Your task to perform on an android device: Open Google Chrome and open the bookmarks view Image 0: 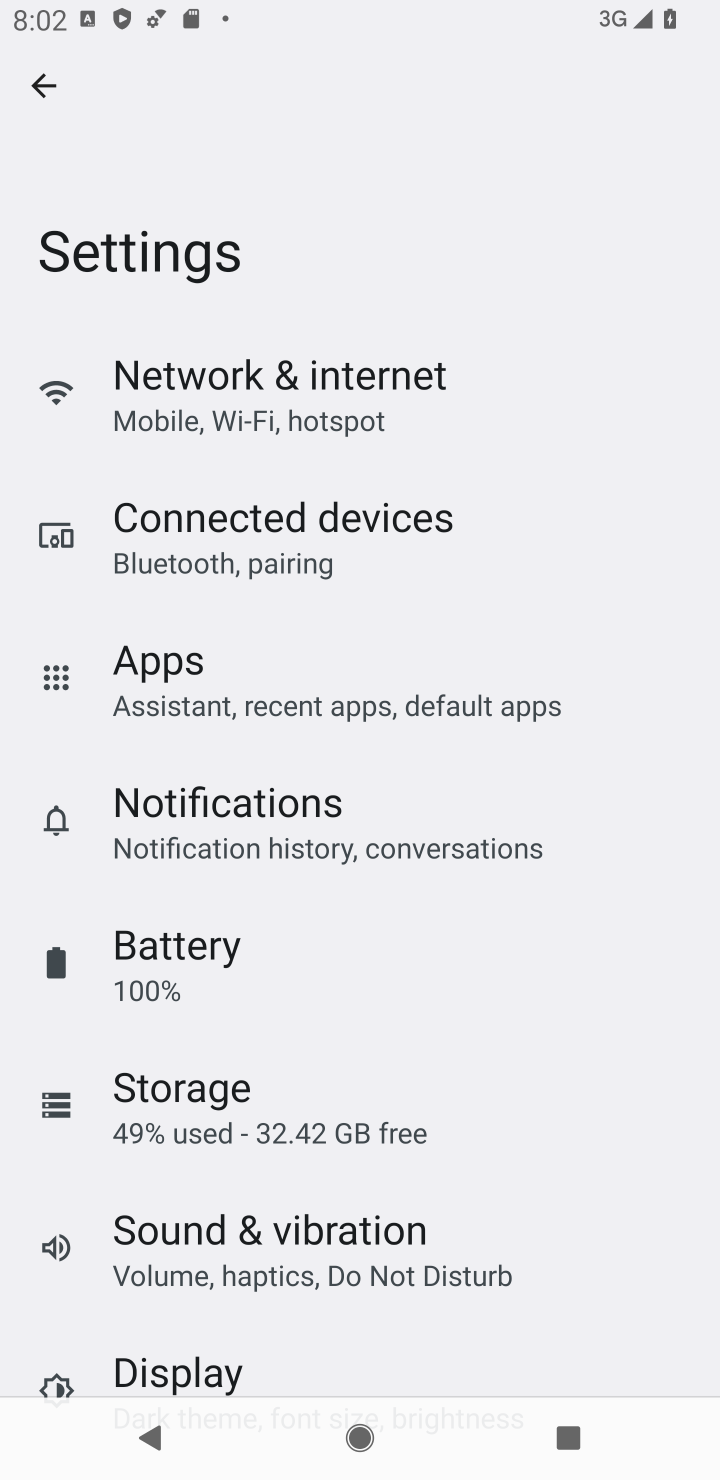
Step 0: press home button
Your task to perform on an android device: Open Google Chrome and open the bookmarks view Image 1: 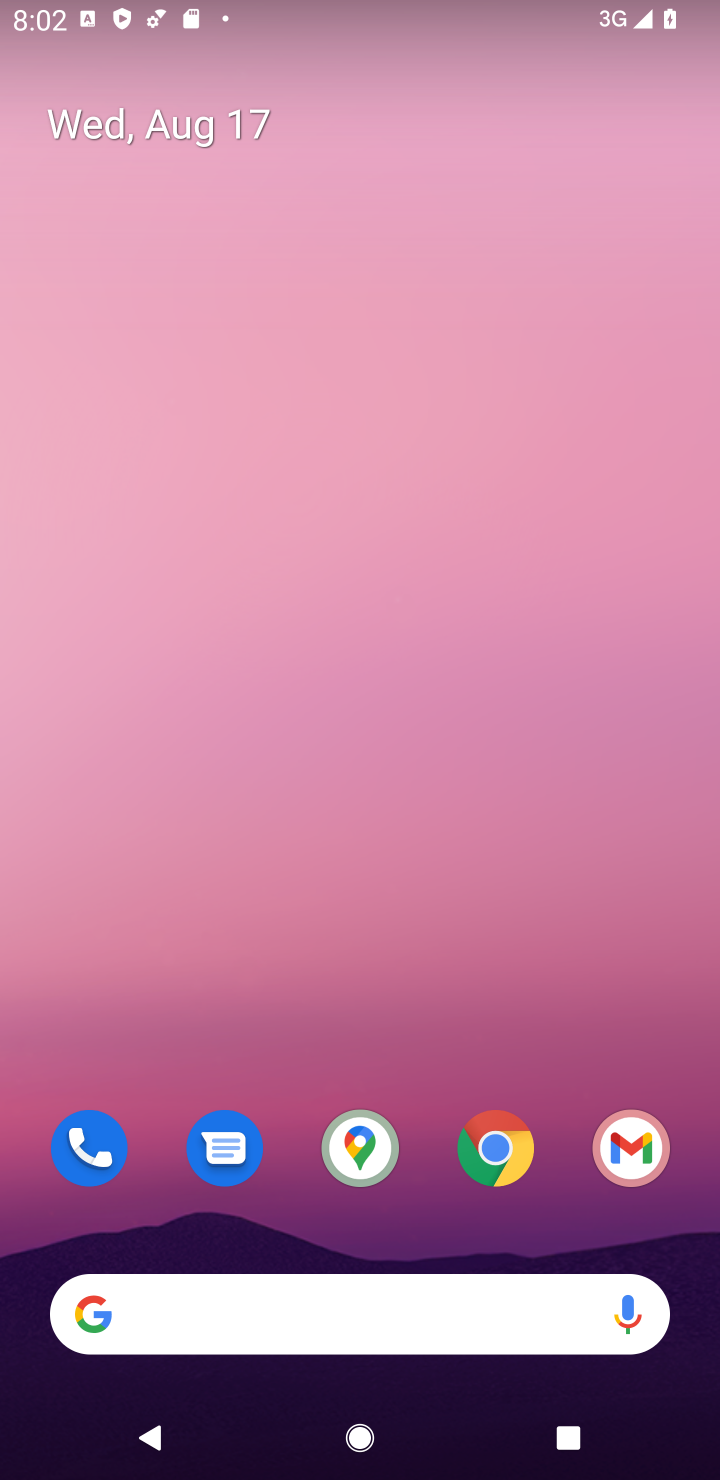
Step 1: click (498, 1149)
Your task to perform on an android device: Open Google Chrome and open the bookmarks view Image 2: 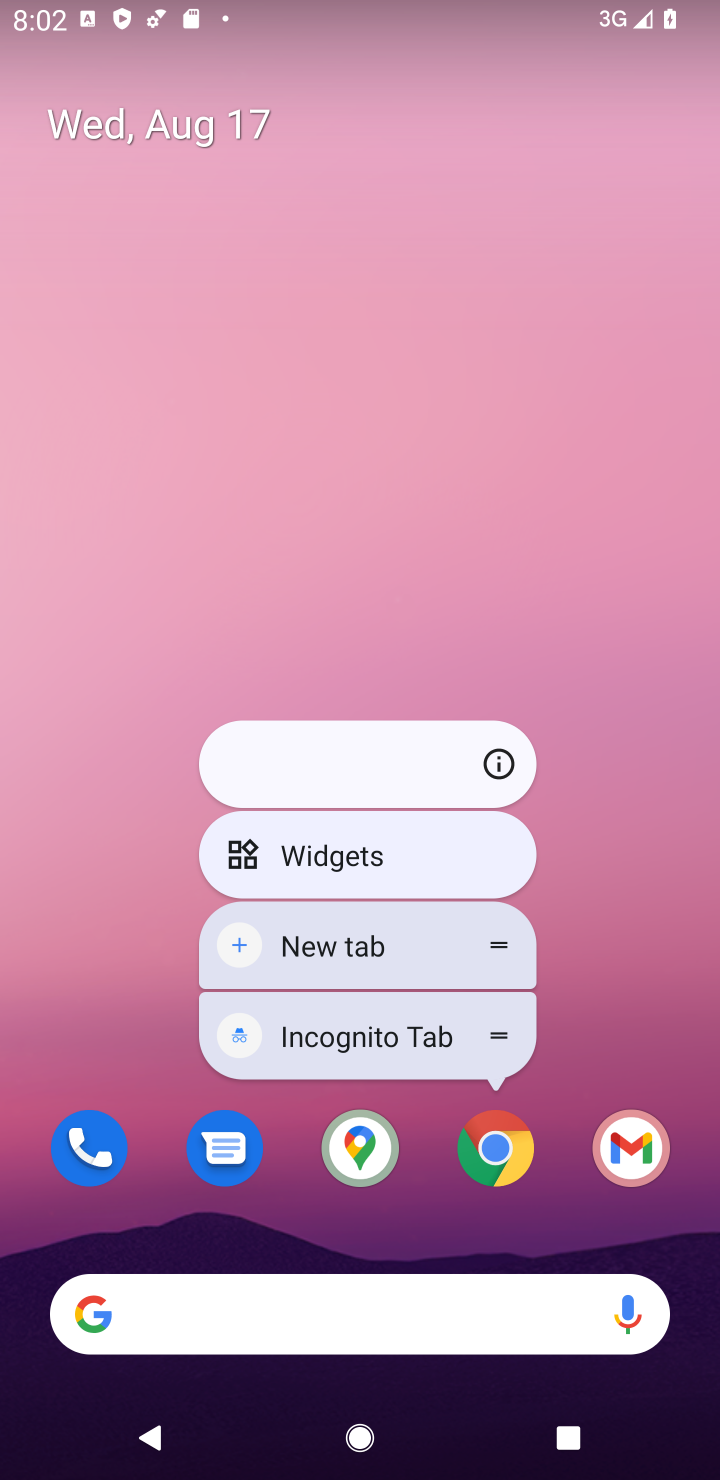
Step 2: click (498, 1149)
Your task to perform on an android device: Open Google Chrome and open the bookmarks view Image 3: 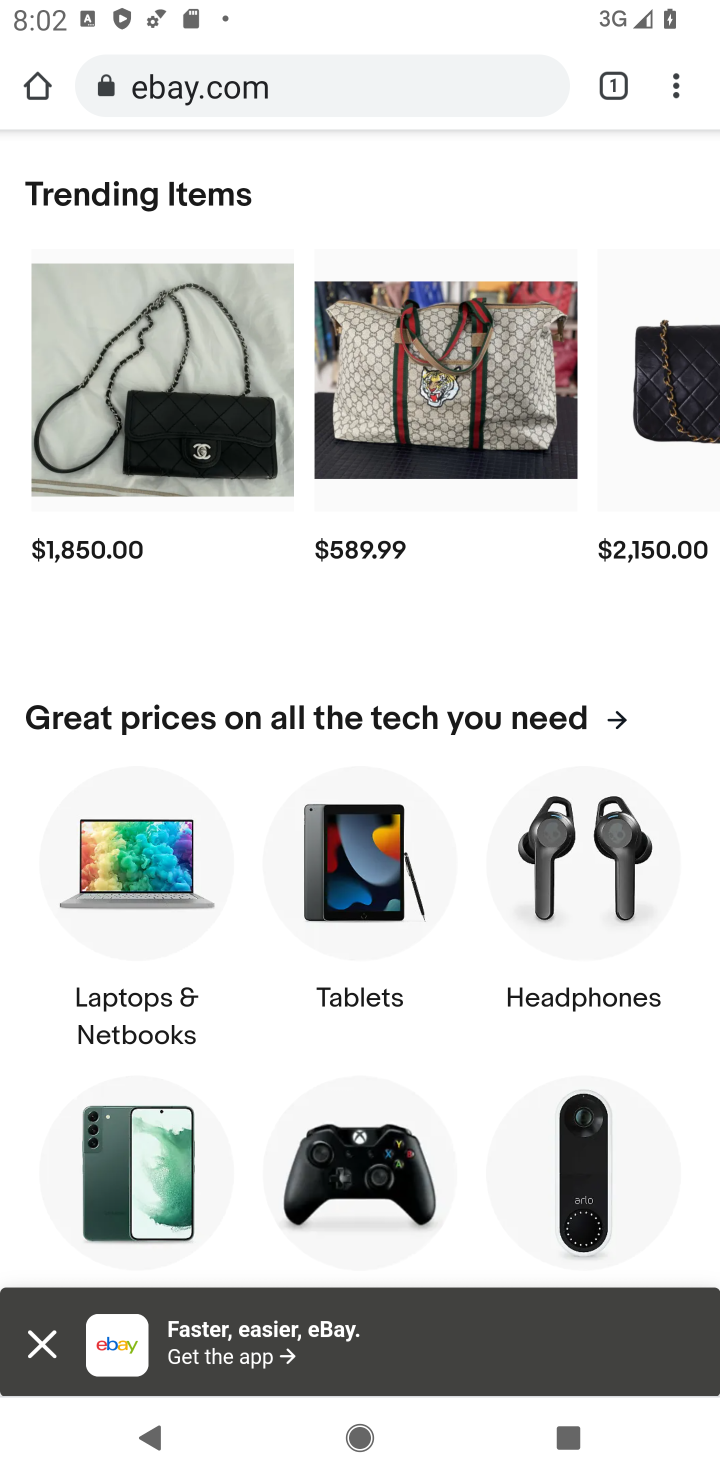
Step 3: click (669, 89)
Your task to perform on an android device: Open Google Chrome and open the bookmarks view Image 4: 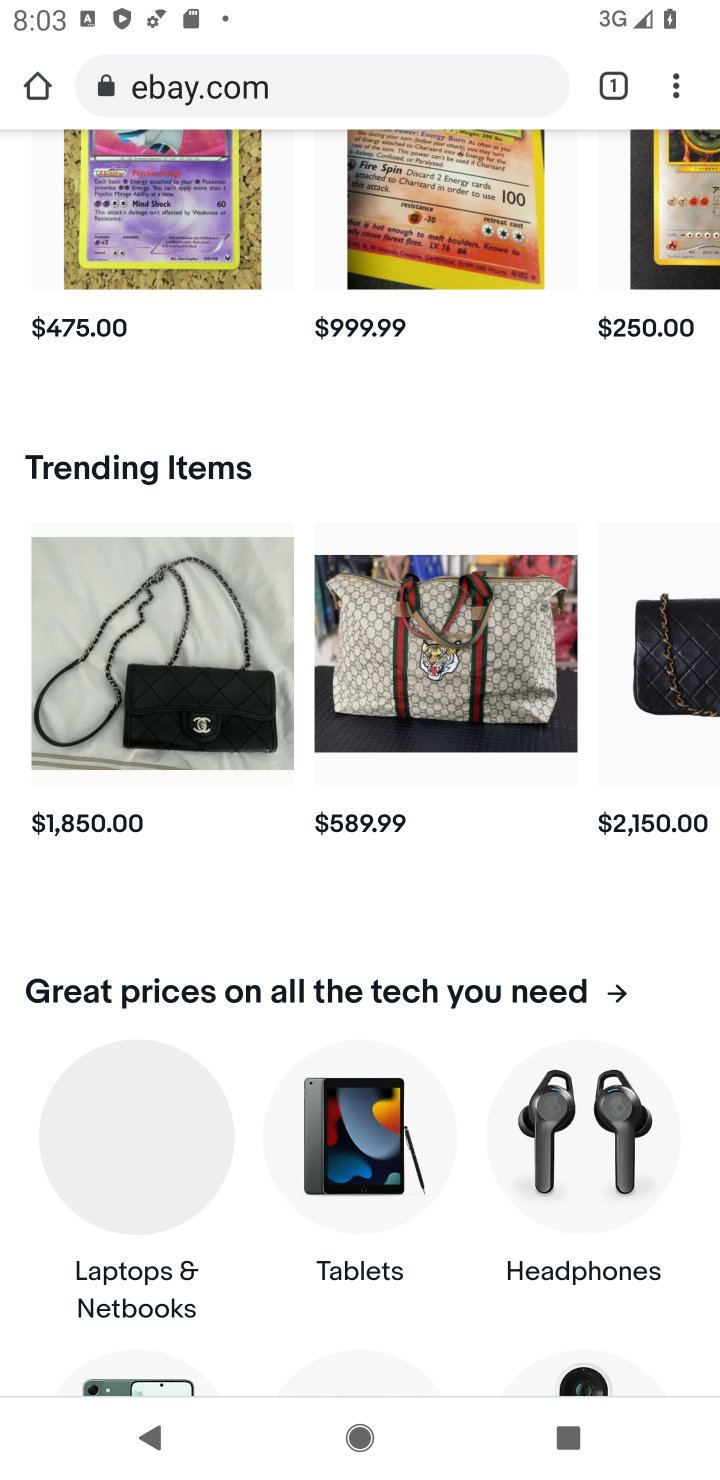
Step 4: click (669, 95)
Your task to perform on an android device: Open Google Chrome and open the bookmarks view Image 5: 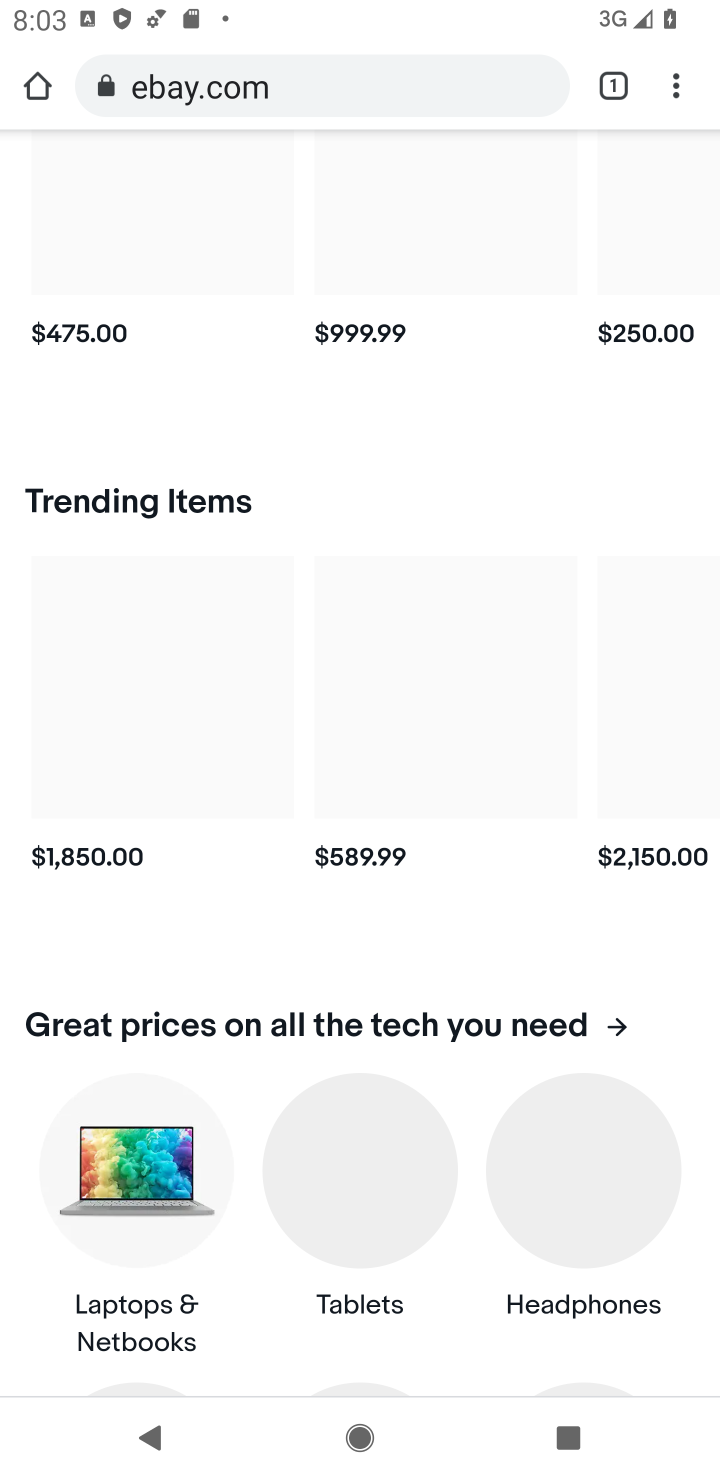
Step 5: click (678, 96)
Your task to perform on an android device: Open Google Chrome and open the bookmarks view Image 6: 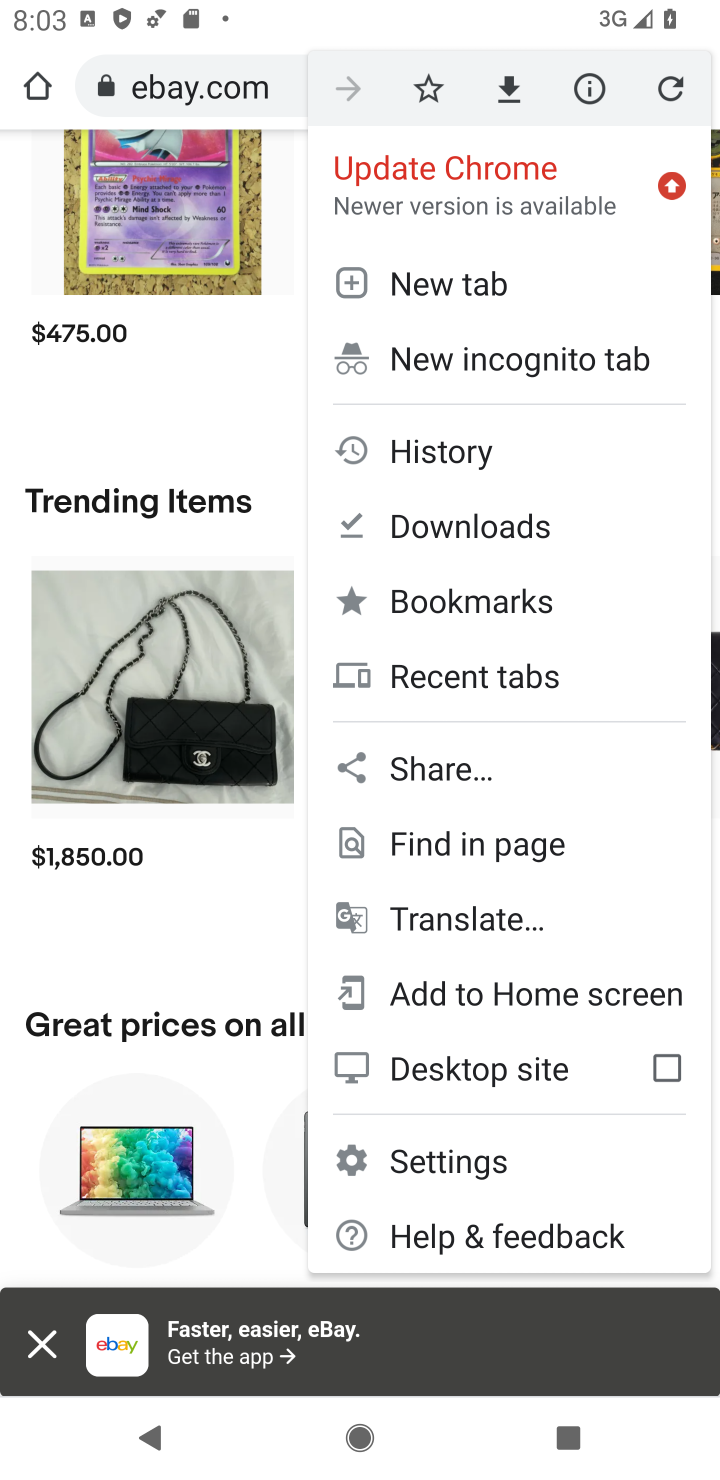
Step 6: click (471, 595)
Your task to perform on an android device: Open Google Chrome and open the bookmarks view Image 7: 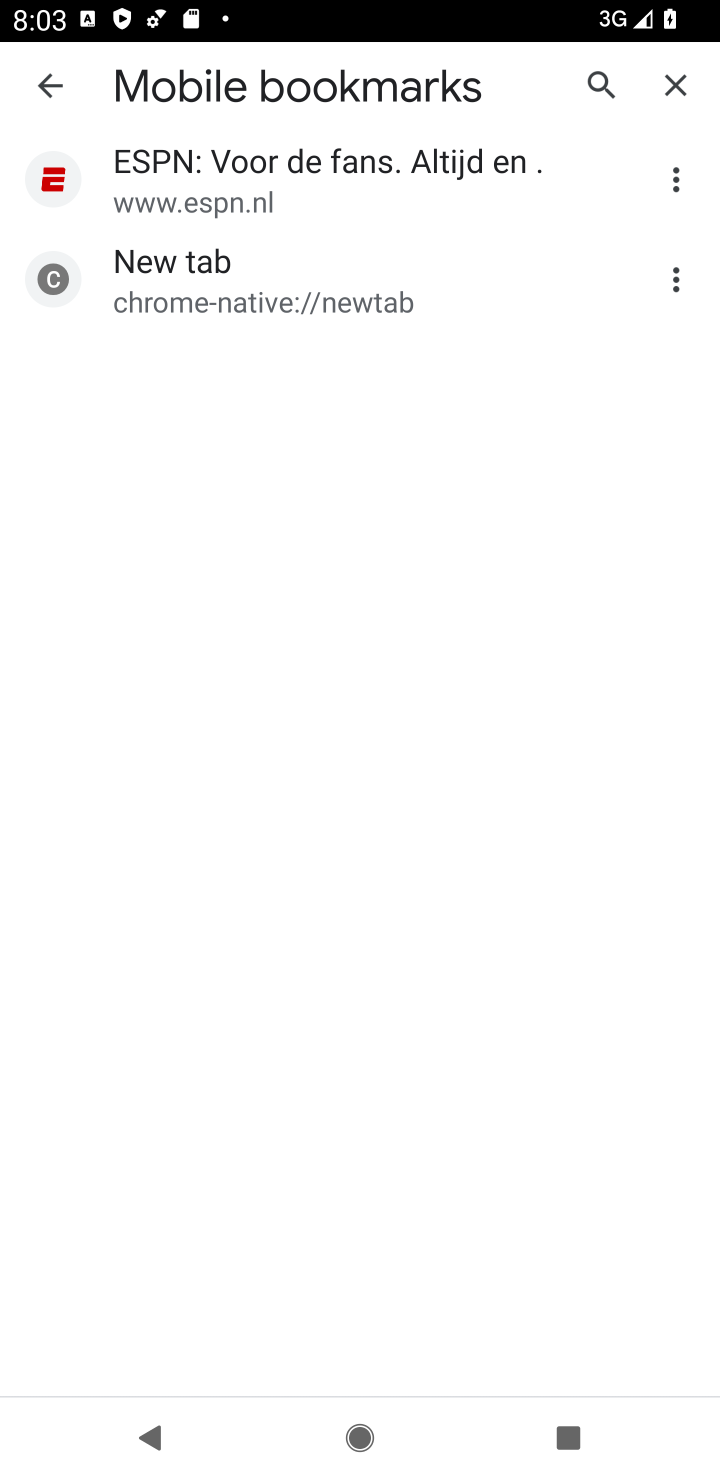
Step 7: task complete